Your task to perform on an android device: Open the web browser Image 0: 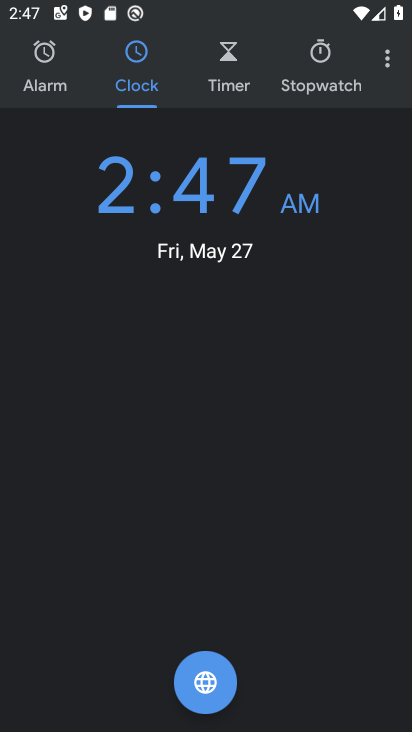
Step 0: press home button
Your task to perform on an android device: Open the web browser Image 1: 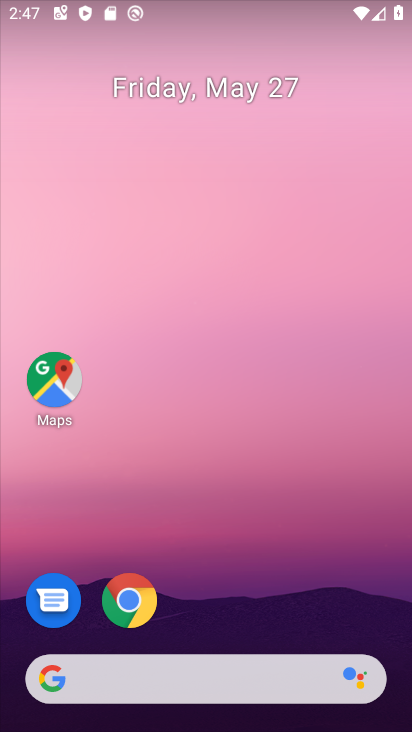
Step 1: click (132, 602)
Your task to perform on an android device: Open the web browser Image 2: 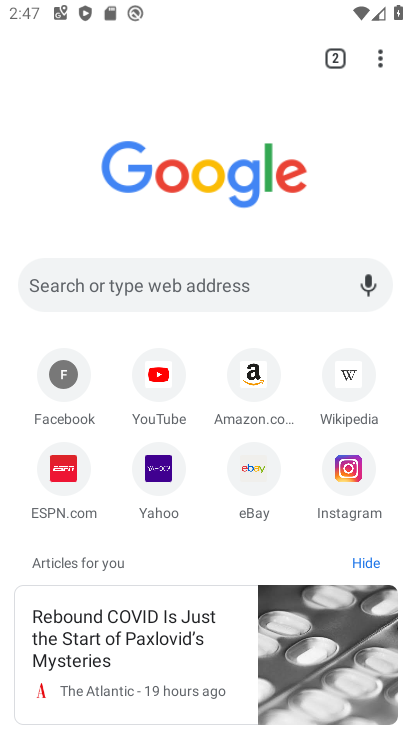
Step 2: task complete